Your task to perform on an android device: turn off notifications settings in the gmail app Image 0: 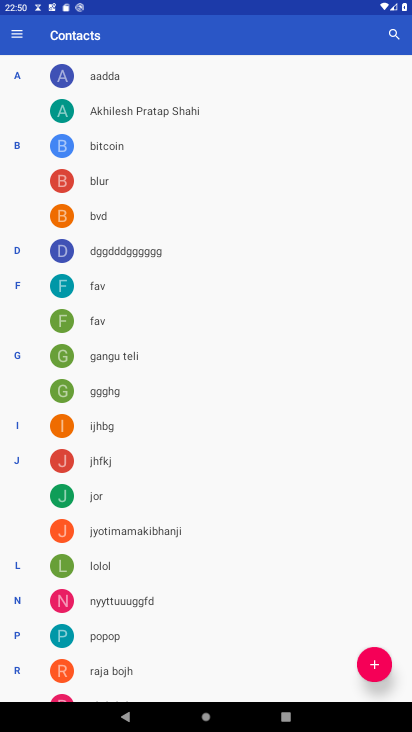
Step 0: press home button
Your task to perform on an android device: turn off notifications settings in the gmail app Image 1: 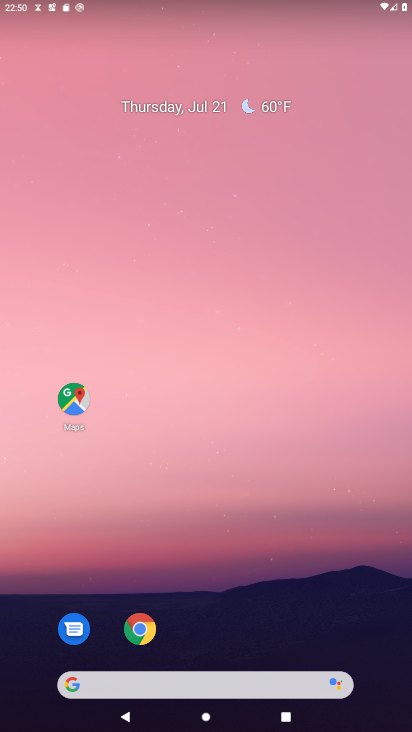
Step 1: drag from (234, 664) to (236, 171)
Your task to perform on an android device: turn off notifications settings in the gmail app Image 2: 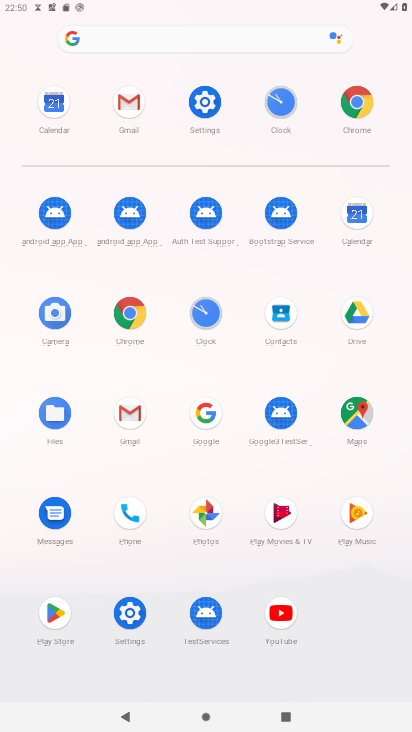
Step 2: click (128, 412)
Your task to perform on an android device: turn off notifications settings in the gmail app Image 3: 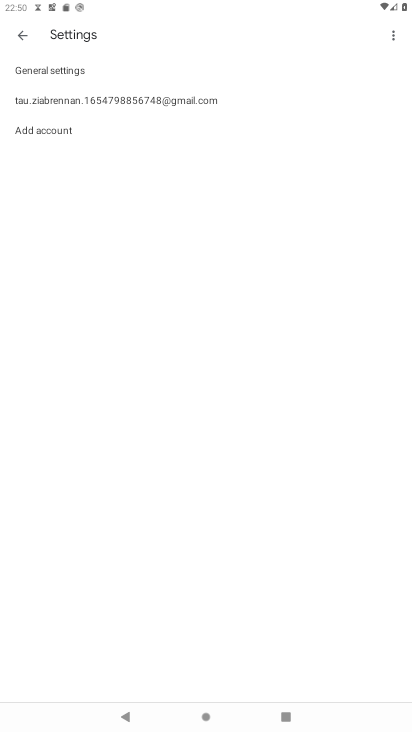
Step 3: click (57, 89)
Your task to perform on an android device: turn off notifications settings in the gmail app Image 4: 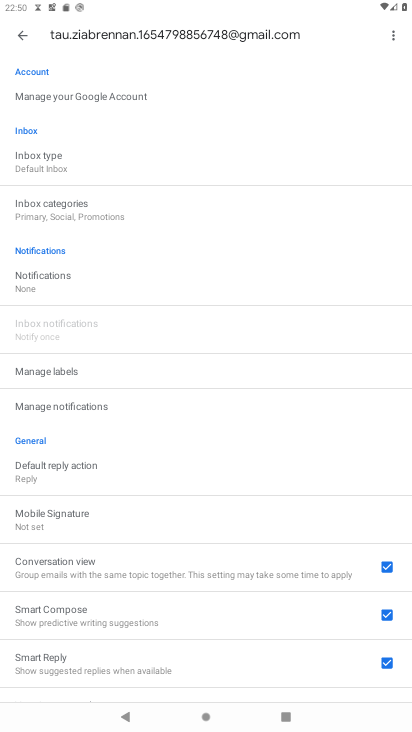
Step 4: click (58, 275)
Your task to perform on an android device: turn off notifications settings in the gmail app Image 5: 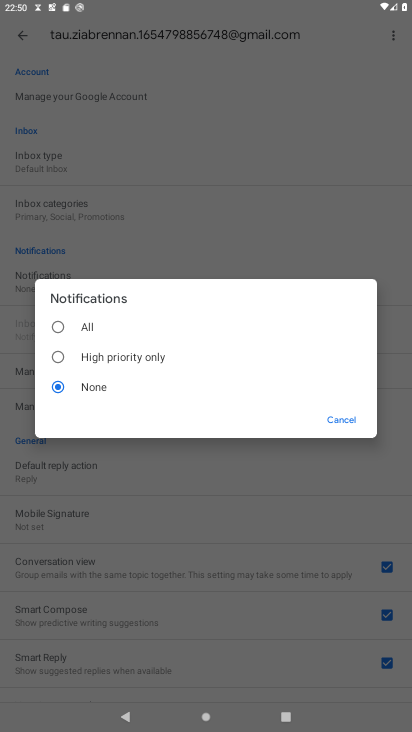
Step 5: task complete